Your task to perform on an android device: allow notifications from all sites in the chrome app Image 0: 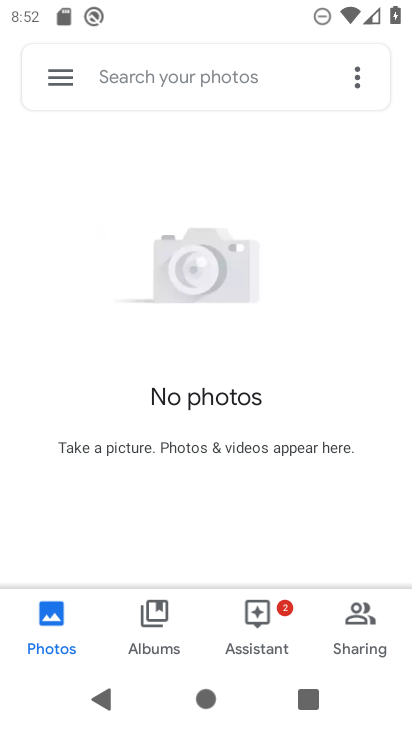
Step 0: press back button
Your task to perform on an android device: allow notifications from all sites in the chrome app Image 1: 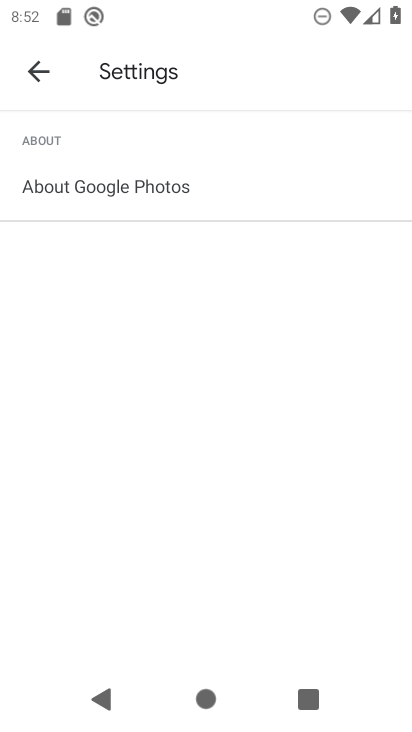
Step 1: press home button
Your task to perform on an android device: allow notifications from all sites in the chrome app Image 2: 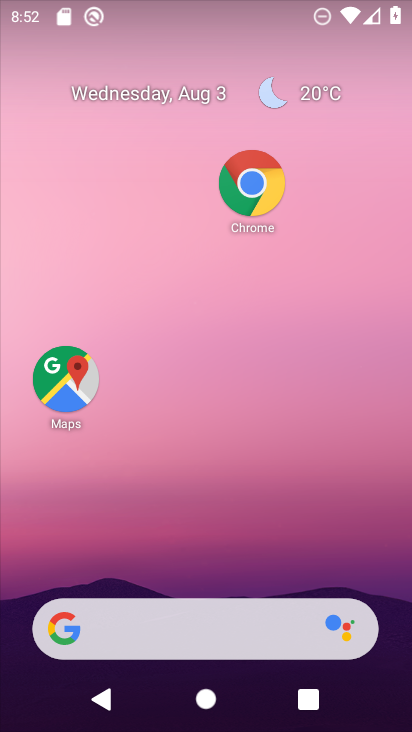
Step 2: click (248, 174)
Your task to perform on an android device: allow notifications from all sites in the chrome app Image 3: 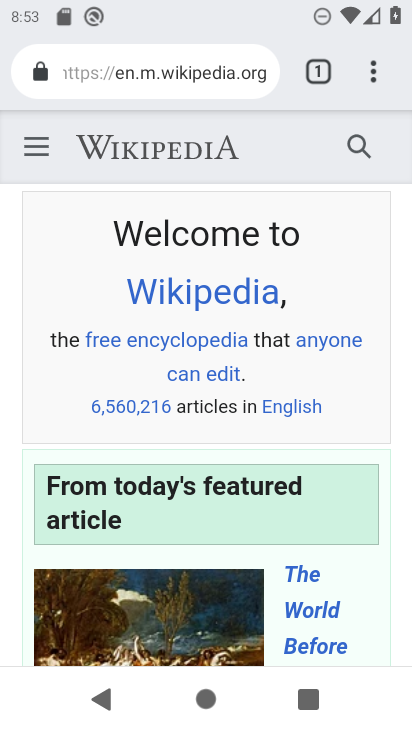
Step 3: click (373, 75)
Your task to perform on an android device: allow notifications from all sites in the chrome app Image 4: 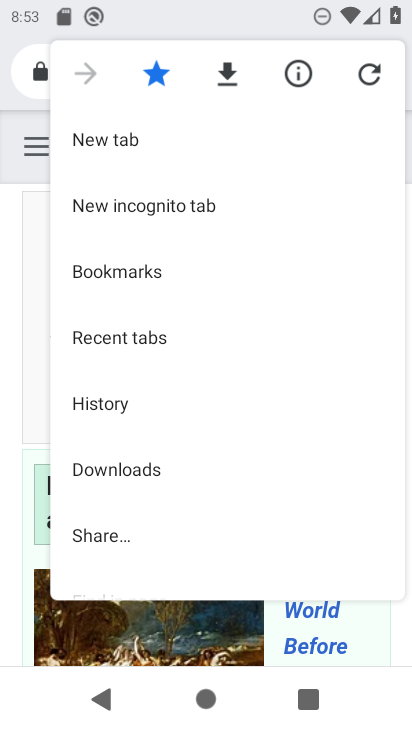
Step 4: drag from (165, 465) to (185, 276)
Your task to perform on an android device: allow notifications from all sites in the chrome app Image 5: 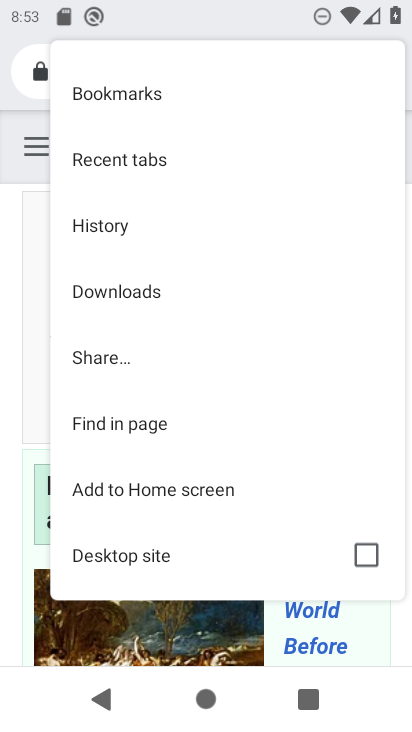
Step 5: drag from (186, 495) to (186, 245)
Your task to perform on an android device: allow notifications from all sites in the chrome app Image 6: 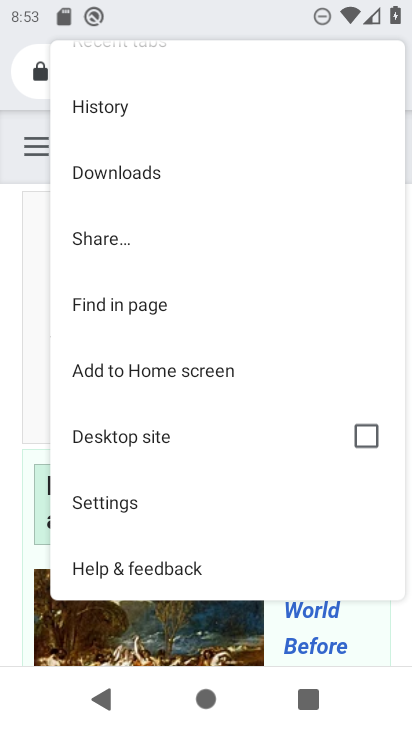
Step 6: click (103, 500)
Your task to perform on an android device: allow notifications from all sites in the chrome app Image 7: 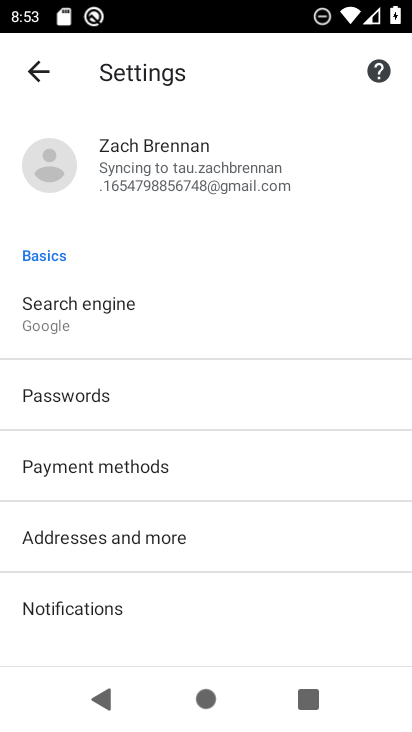
Step 7: drag from (207, 573) to (224, 248)
Your task to perform on an android device: allow notifications from all sites in the chrome app Image 8: 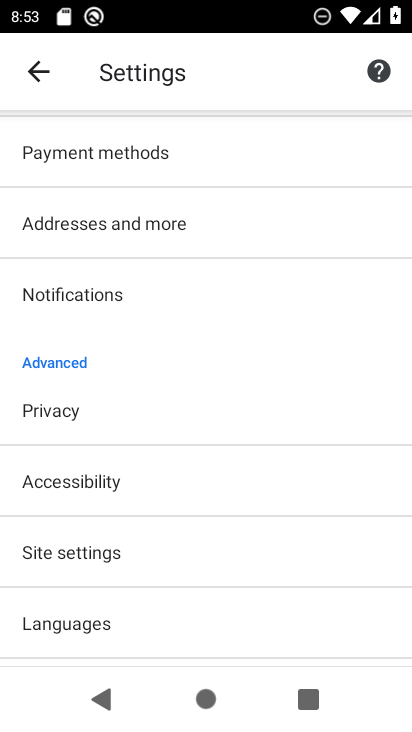
Step 8: click (75, 288)
Your task to perform on an android device: allow notifications from all sites in the chrome app Image 9: 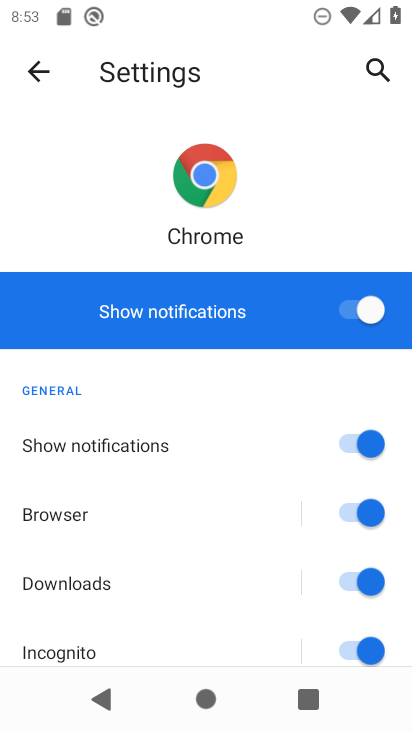
Step 9: task complete